Your task to perform on an android device: turn on airplane mode Image 0: 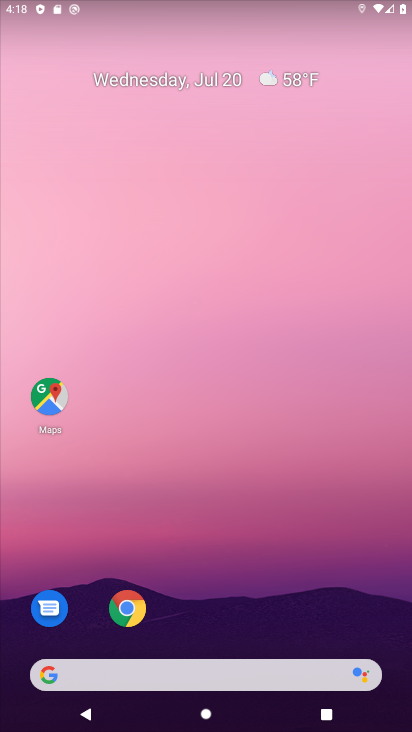
Step 0: drag from (279, 606) to (320, 2)
Your task to perform on an android device: turn on airplane mode Image 1: 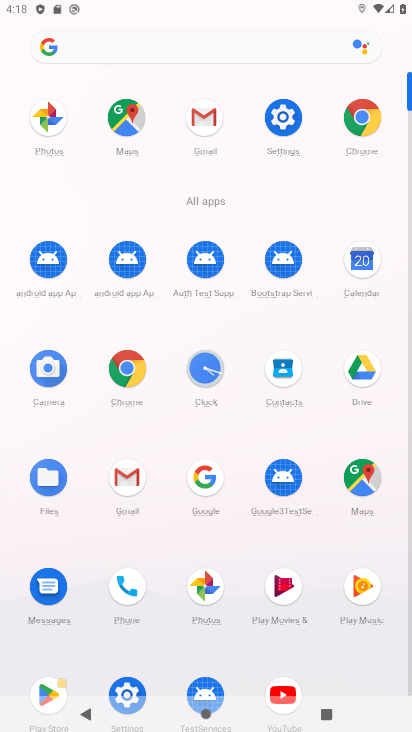
Step 1: click (279, 176)
Your task to perform on an android device: turn on airplane mode Image 2: 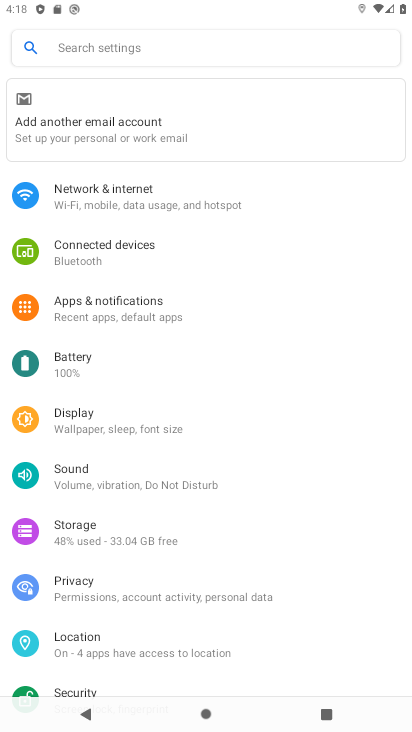
Step 2: click (204, 214)
Your task to perform on an android device: turn on airplane mode Image 3: 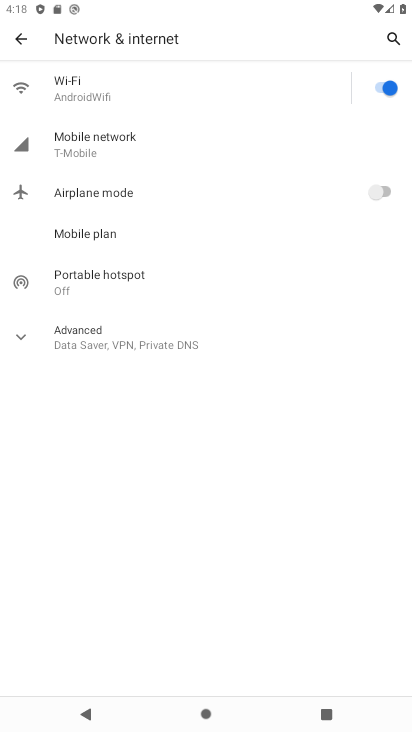
Step 3: click (337, 197)
Your task to perform on an android device: turn on airplane mode Image 4: 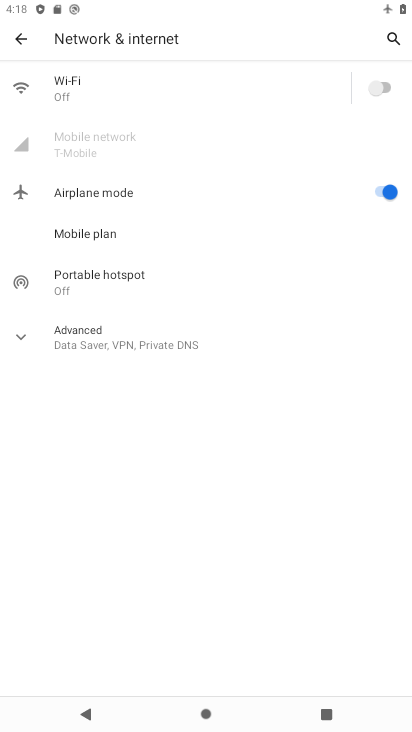
Step 4: task complete